Your task to perform on an android device: Go to network settings Image 0: 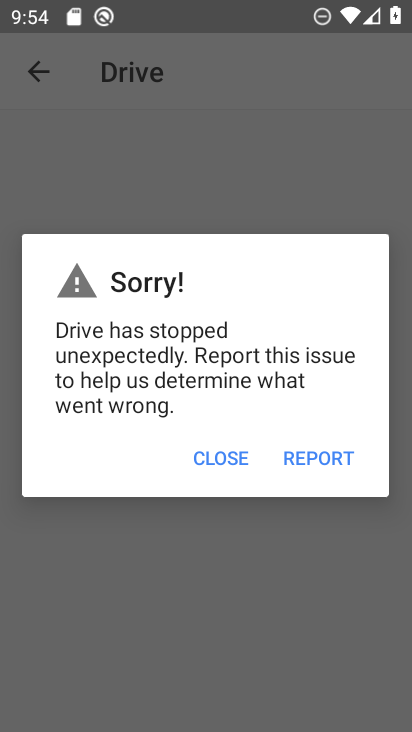
Step 0: click (232, 463)
Your task to perform on an android device: Go to network settings Image 1: 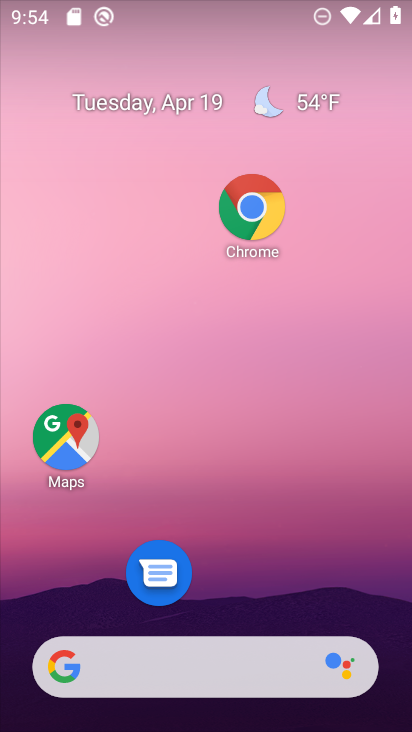
Step 1: drag from (222, 638) to (317, 204)
Your task to perform on an android device: Go to network settings Image 2: 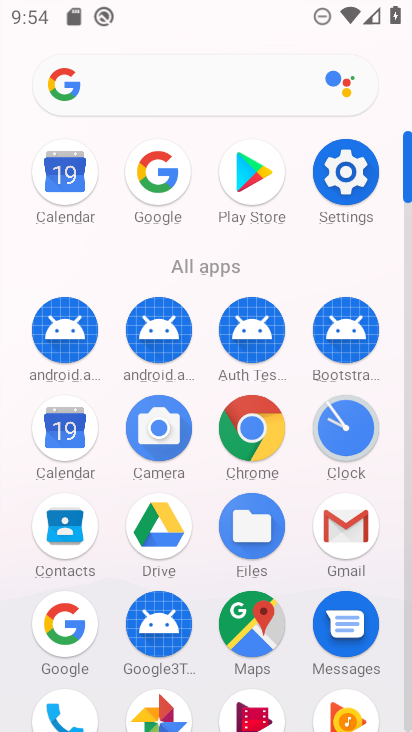
Step 2: click (348, 179)
Your task to perform on an android device: Go to network settings Image 3: 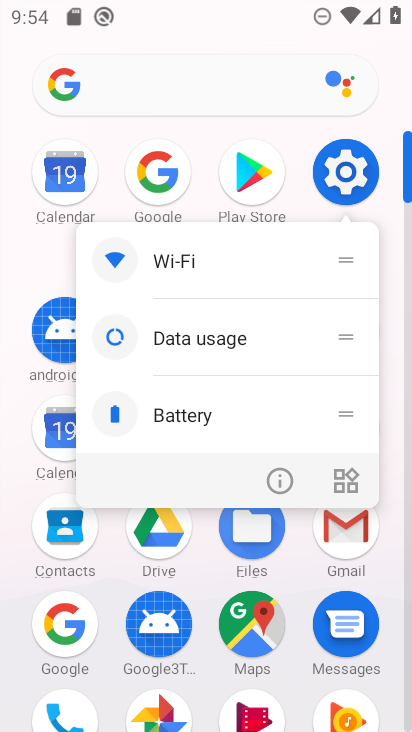
Step 3: click (347, 170)
Your task to perform on an android device: Go to network settings Image 4: 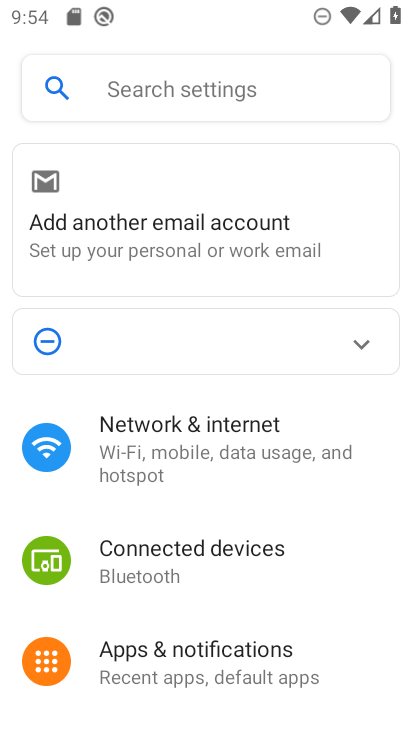
Step 4: click (151, 458)
Your task to perform on an android device: Go to network settings Image 5: 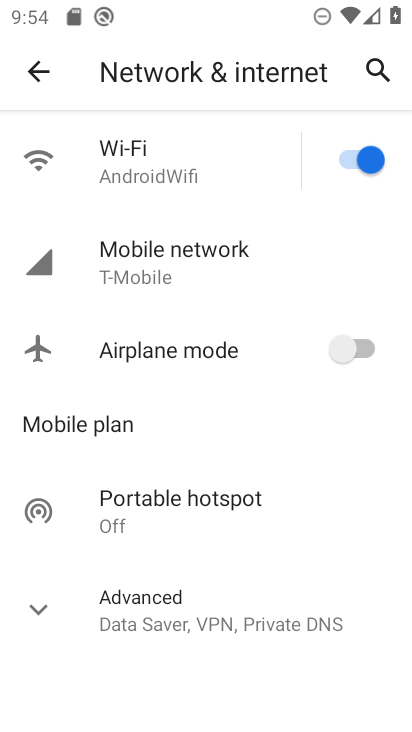
Step 5: click (168, 615)
Your task to perform on an android device: Go to network settings Image 6: 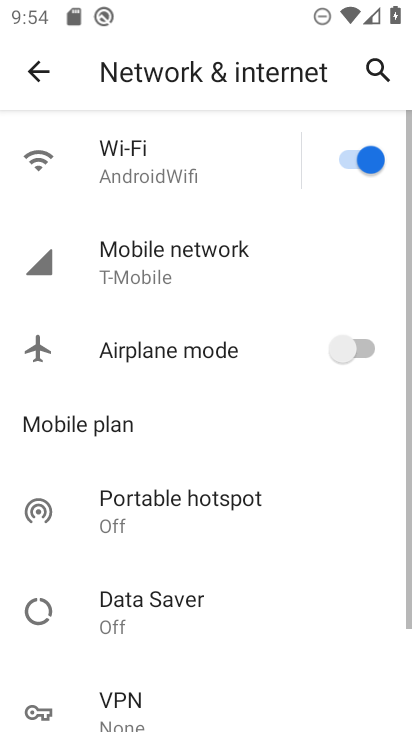
Step 6: task complete